Your task to perform on an android device: open device folders in google photos Image 0: 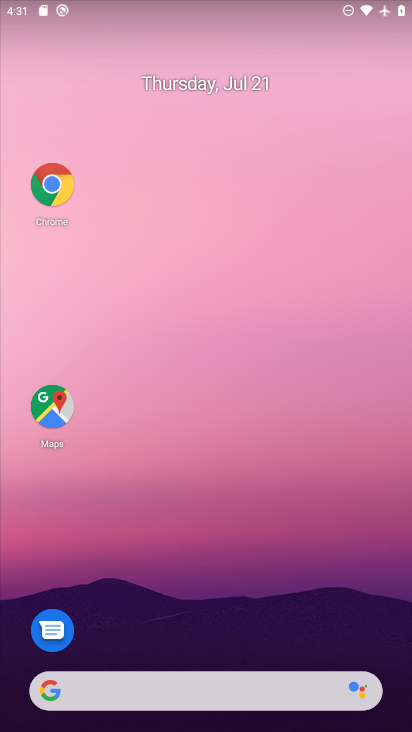
Step 0: drag from (227, 652) to (168, 66)
Your task to perform on an android device: open device folders in google photos Image 1: 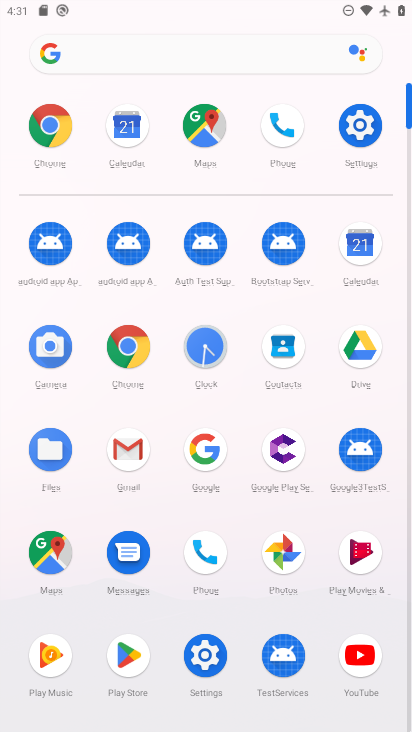
Step 1: click (272, 542)
Your task to perform on an android device: open device folders in google photos Image 2: 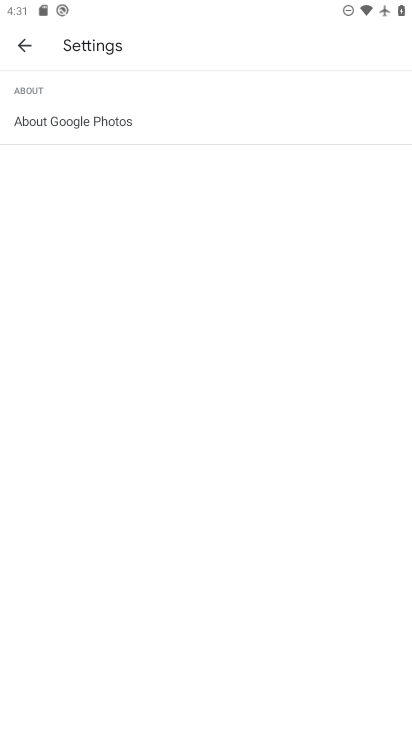
Step 2: click (20, 49)
Your task to perform on an android device: open device folders in google photos Image 3: 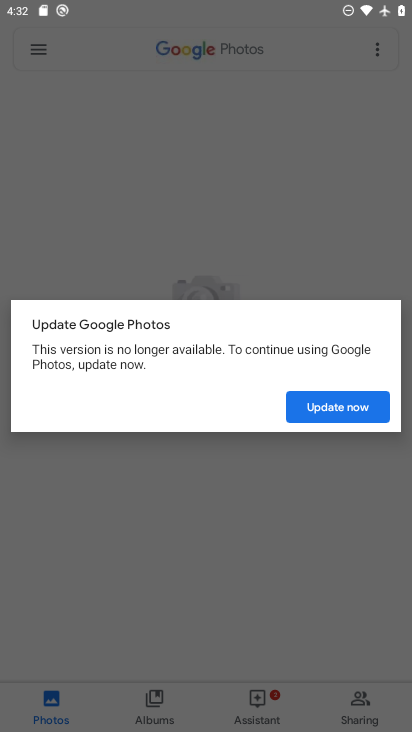
Step 3: click (349, 405)
Your task to perform on an android device: open device folders in google photos Image 4: 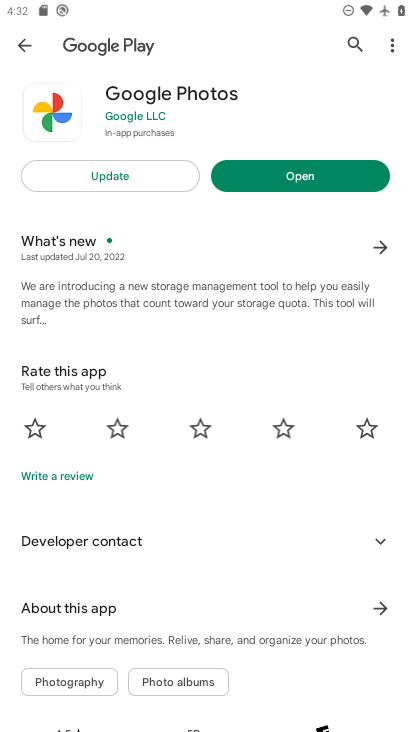
Step 4: drag from (135, 180) to (182, 598)
Your task to perform on an android device: open device folders in google photos Image 5: 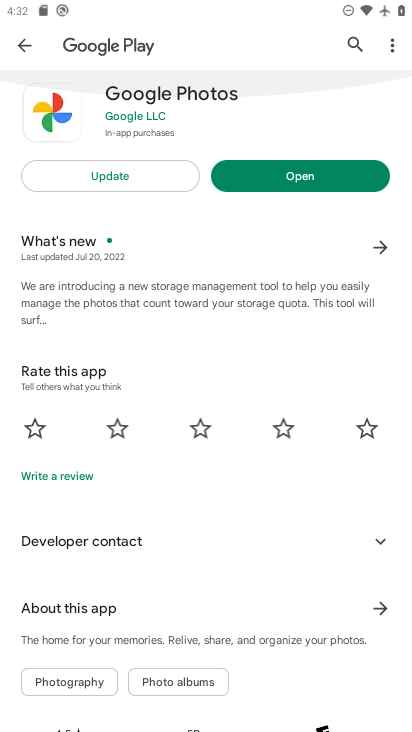
Step 5: click (308, 160)
Your task to perform on an android device: open device folders in google photos Image 6: 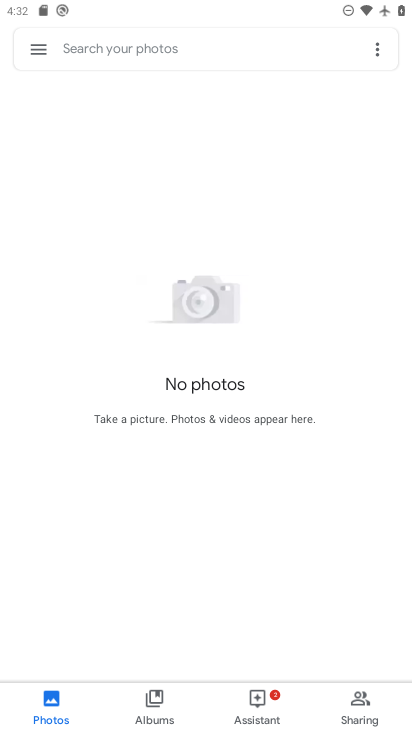
Step 6: click (45, 42)
Your task to perform on an android device: open device folders in google photos Image 7: 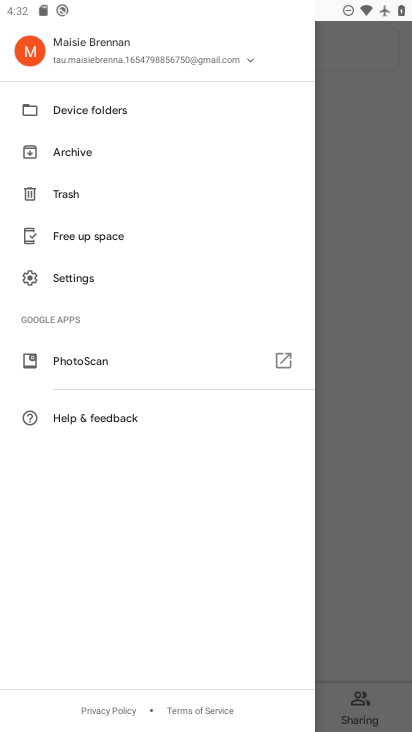
Step 7: click (105, 105)
Your task to perform on an android device: open device folders in google photos Image 8: 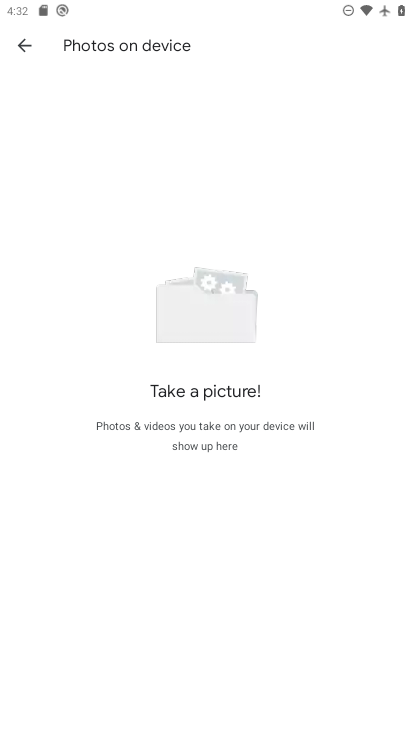
Step 8: task complete